Your task to perform on an android device: Open calendar and show me the first week of next month Image 0: 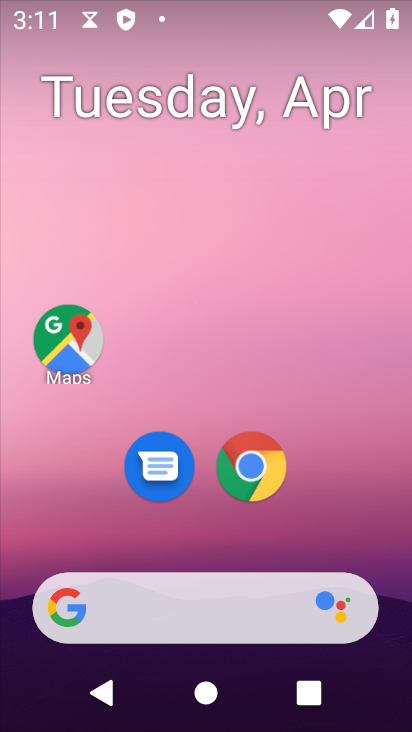
Step 0: drag from (364, 584) to (296, 6)
Your task to perform on an android device: Open calendar and show me the first week of next month Image 1: 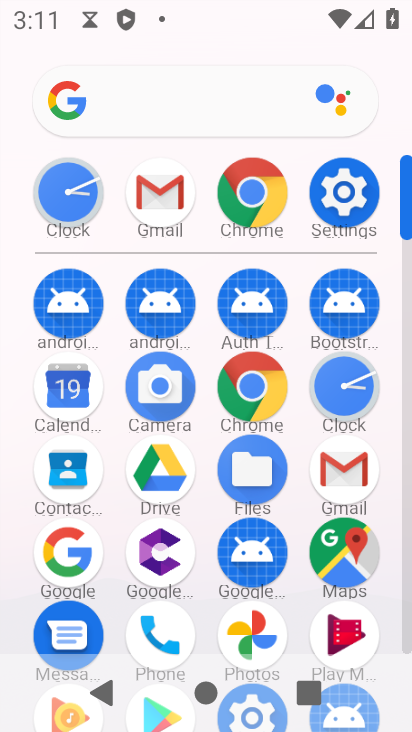
Step 1: drag from (10, 461) to (83, 725)
Your task to perform on an android device: Open calendar and show me the first week of next month Image 2: 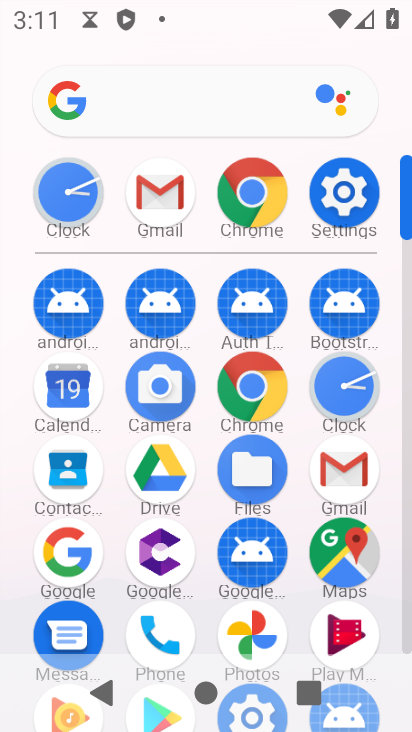
Step 2: drag from (20, 510) to (31, 235)
Your task to perform on an android device: Open calendar and show me the first week of next month Image 3: 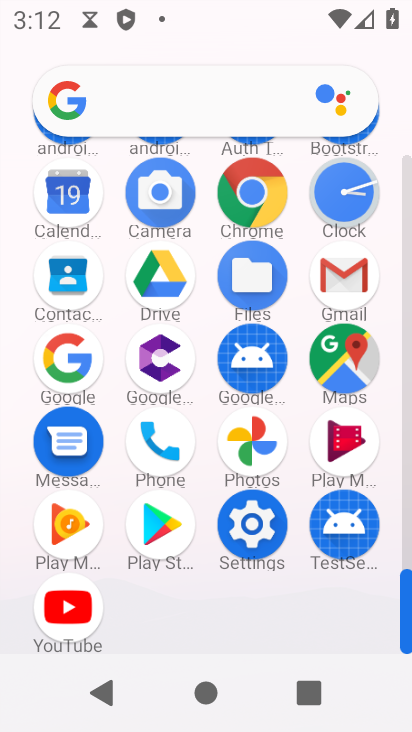
Step 3: click (69, 195)
Your task to perform on an android device: Open calendar and show me the first week of next month Image 4: 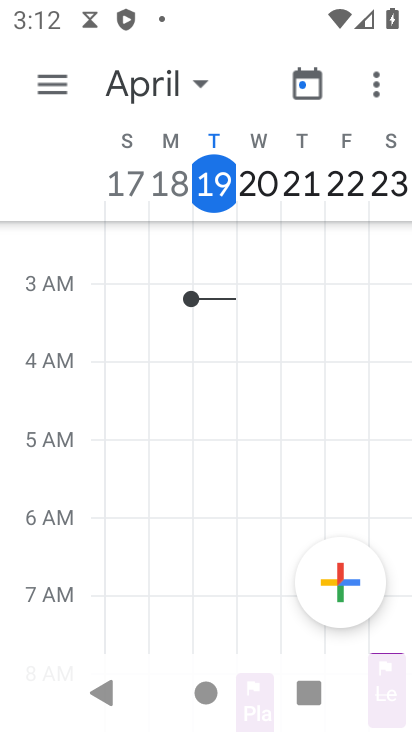
Step 4: click (198, 81)
Your task to perform on an android device: Open calendar and show me the first week of next month Image 5: 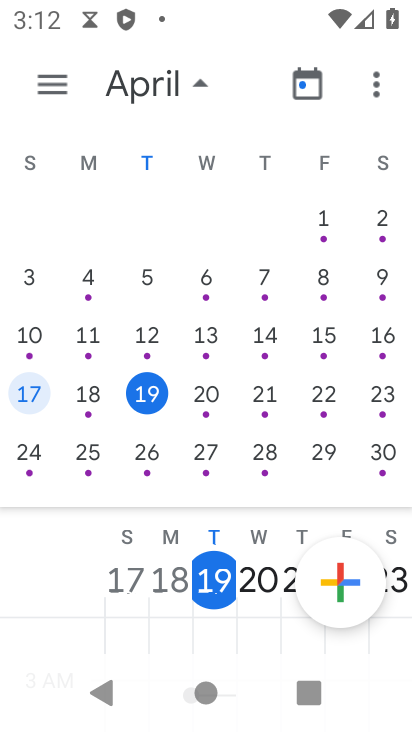
Step 5: drag from (386, 304) to (4, 219)
Your task to perform on an android device: Open calendar and show me the first week of next month Image 6: 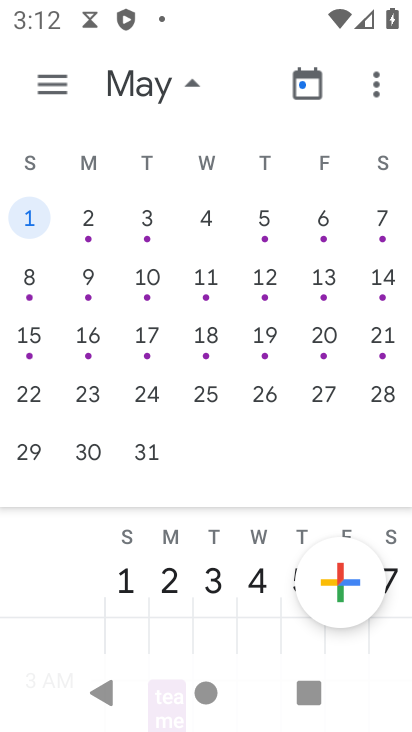
Step 6: click (82, 209)
Your task to perform on an android device: Open calendar and show me the first week of next month Image 7: 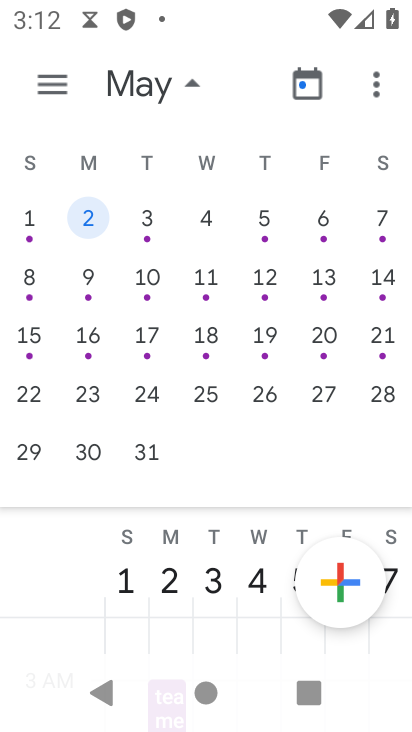
Step 7: click (56, 84)
Your task to perform on an android device: Open calendar and show me the first week of next month Image 8: 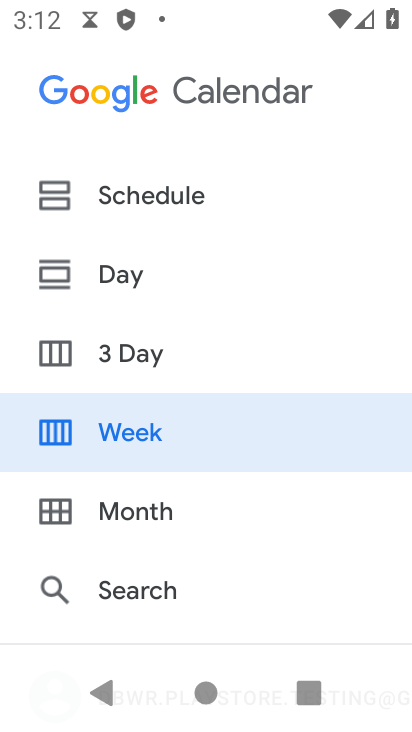
Step 8: click (126, 430)
Your task to perform on an android device: Open calendar and show me the first week of next month Image 9: 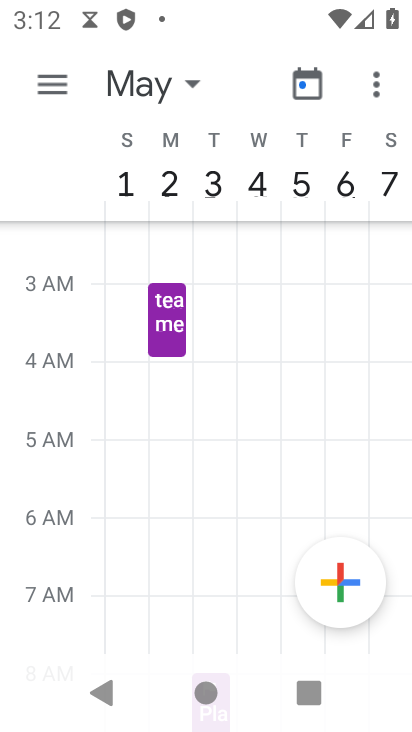
Step 9: task complete